Your task to perform on an android device: set an alarm Image 0: 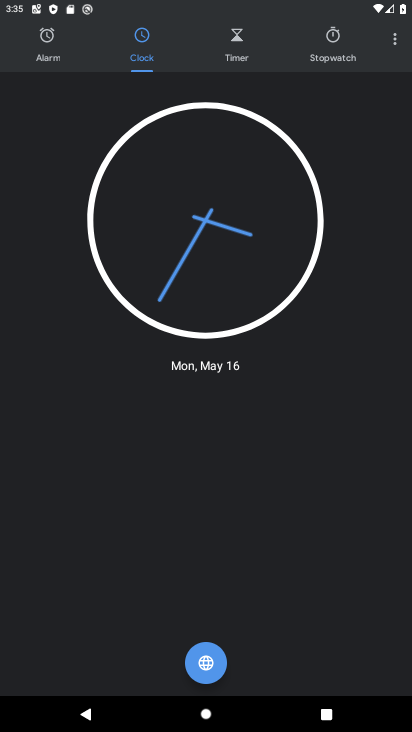
Step 0: click (48, 40)
Your task to perform on an android device: set an alarm Image 1: 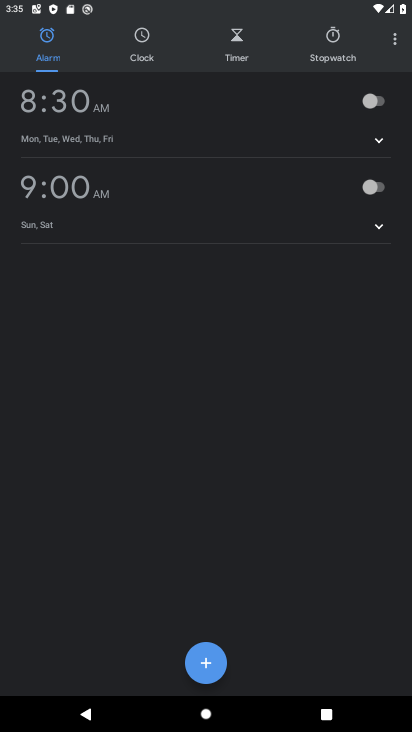
Step 1: click (210, 665)
Your task to perform on an android device: set an alarm Image 2: 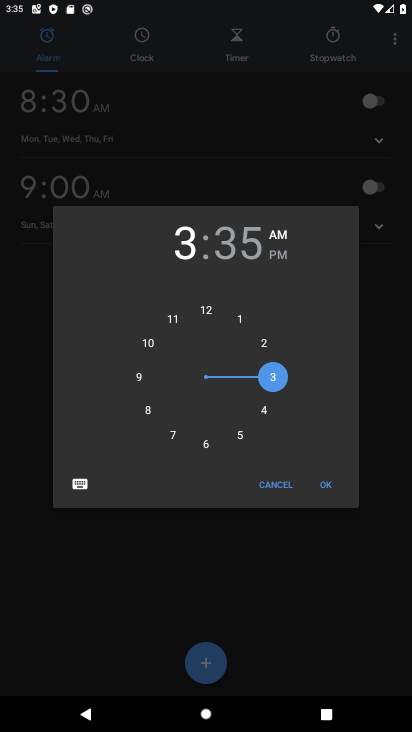
Step 2: click (142, 340)
Your task to perform on an android device: set an alarm Image 3: 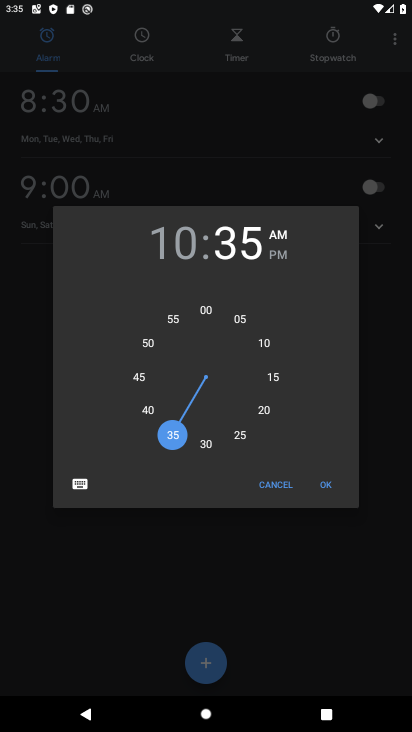
Step 3: click (261, 343)
Your task to perform on an android device: set an alarm Image 4: 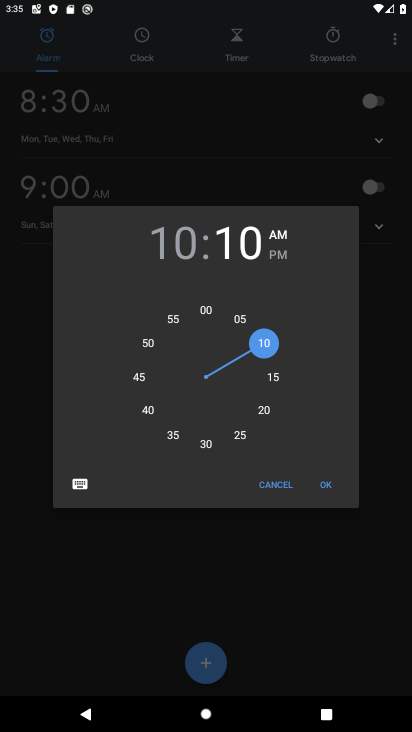
Step 4: click (282, 260)
Your task to perform on an android device: set an alarm Image 5: 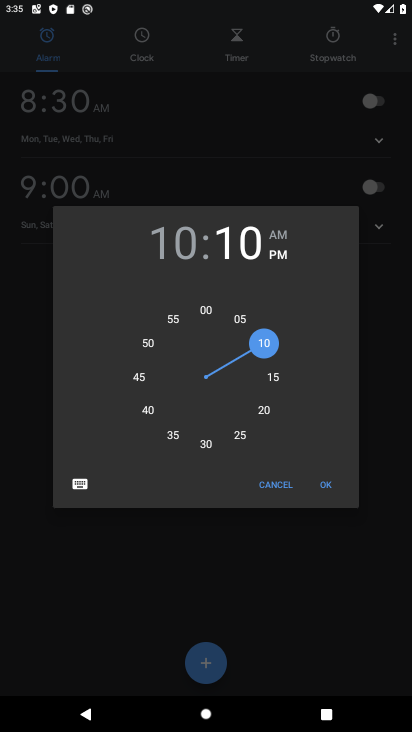
Step 5: click (327, 486)
Your task to perform on an android device: set an alarm Image 6: 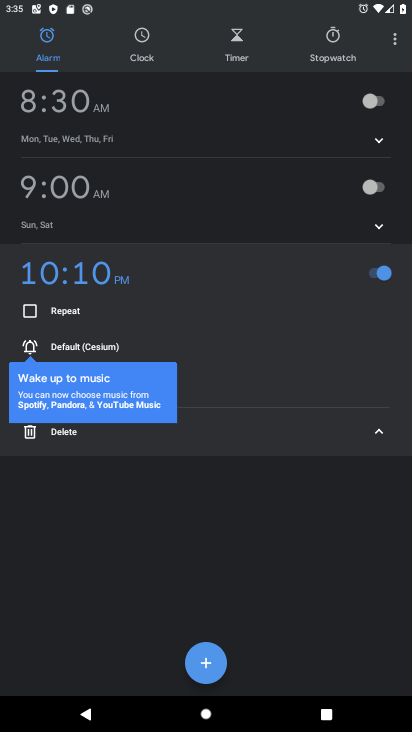
Step 6: click (378, 435)
Your task to perform on an android device: set an alarm Image 7: 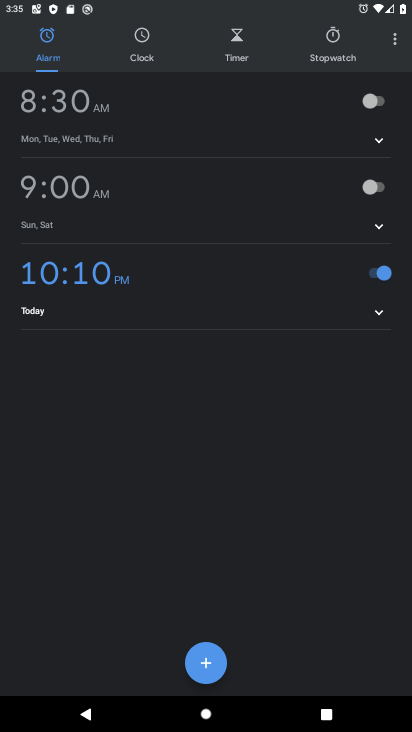
Step 7: task complete